Your task to perform on an android device: Open maps Image 0: 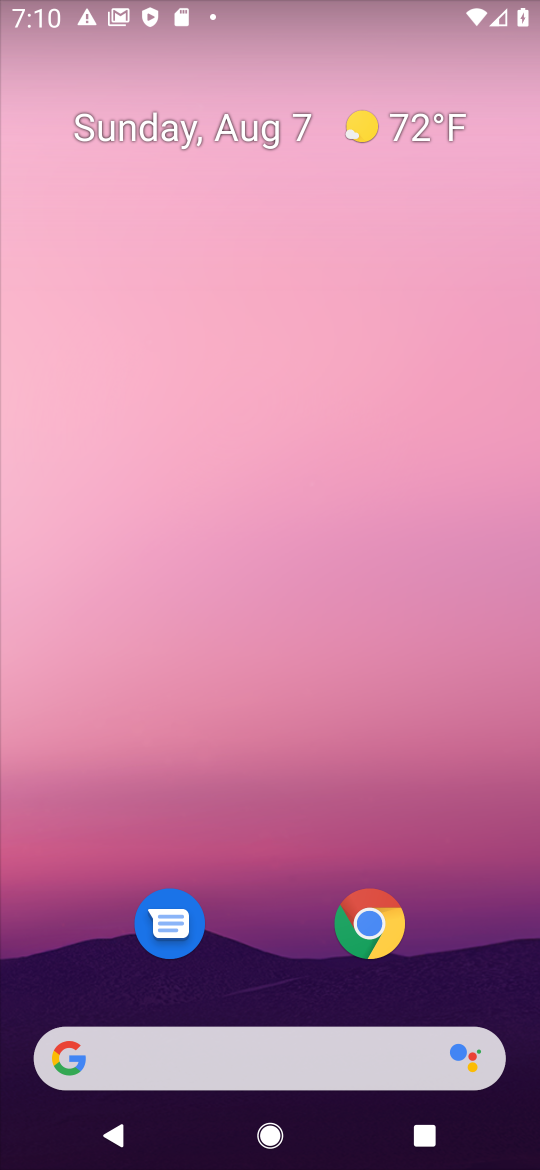
Step 0: drag from (492, 989) to (264, 70)
Your task to perform on an android device: Open maps Image 1: 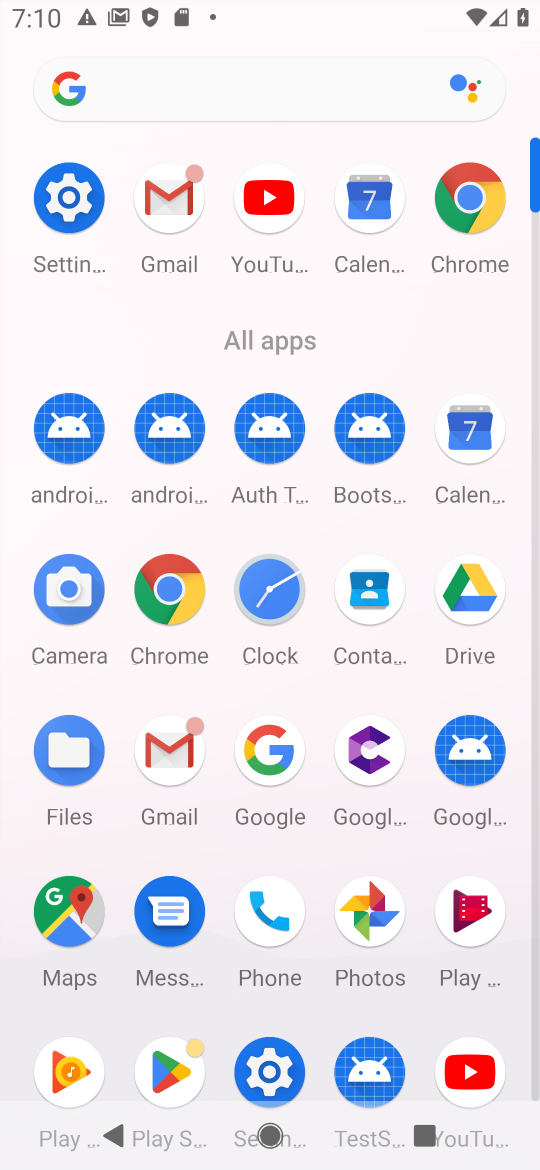
Step 1: click (90, 927)
Your task to perform on an android device: Open maps Image 2: 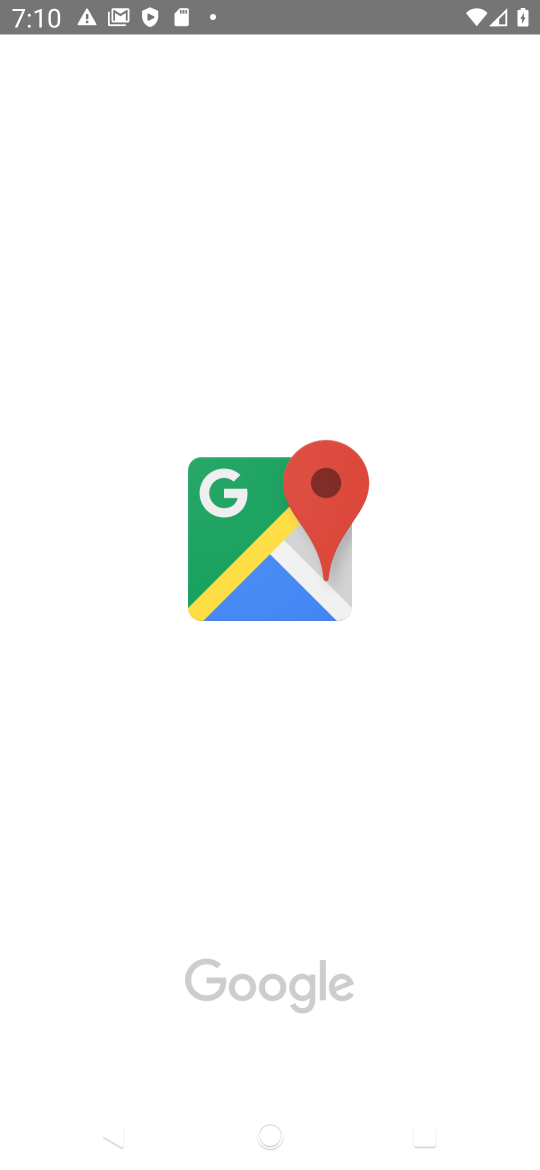
Step 2: click (81, 917)
Your task to perform on an android device: Open maps Image 3: 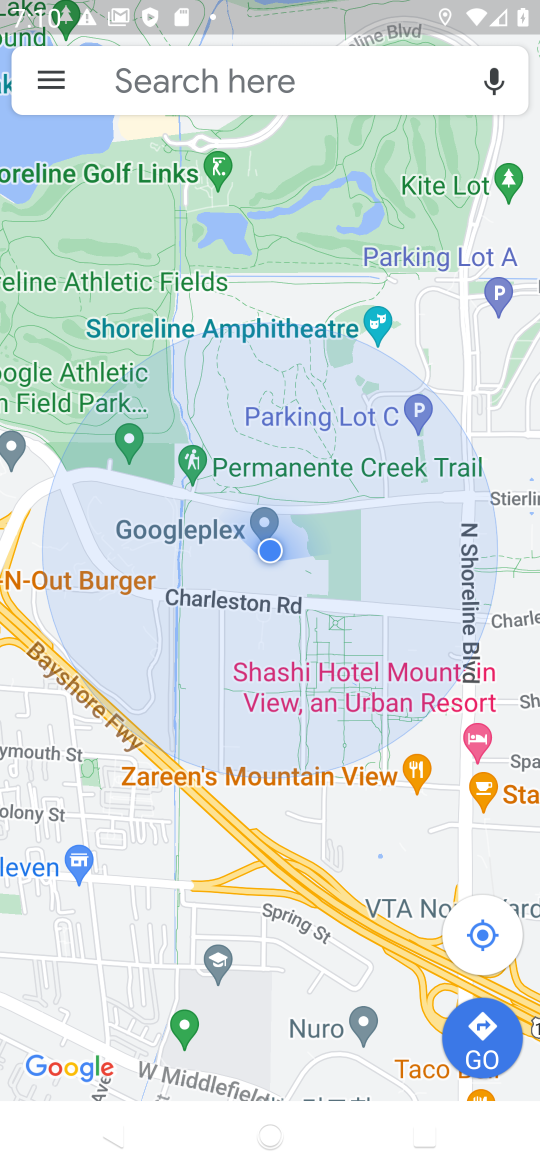
Step 3: task complete